Your task to perform on an android device: Go to Reddit.com Image 0: 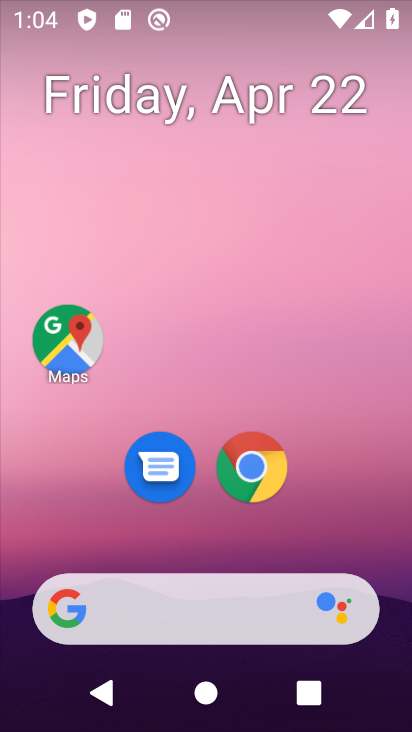
Step 0: click (249, 466)
Your task to perform on an android device: Go to Reddit.com Image 1: 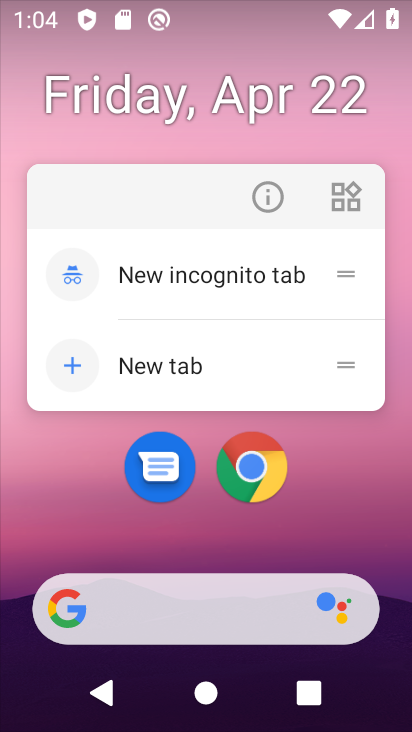
Step 1: click (250, 460)
Your task to perform on an android device: Go to Reddit.com Image 2: 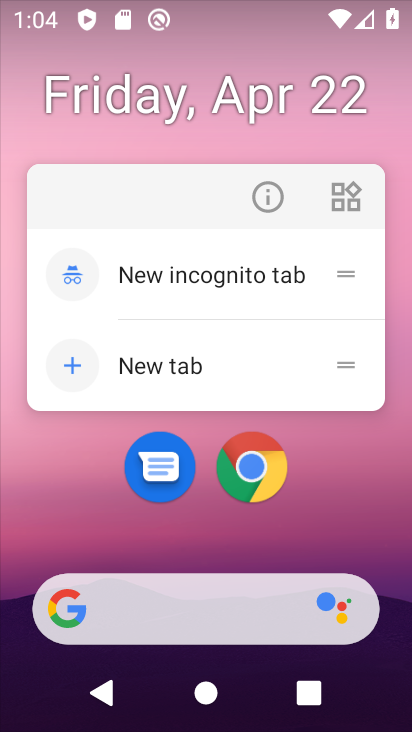
Step 2: click (319, 526)
Your task to perform on an android device: Go to Reddit.com Image 3: 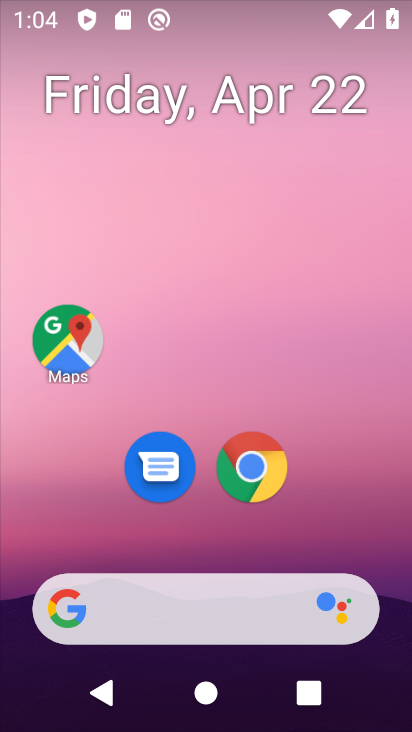
Step 3: click (246, 458)
Your task to perform on an android device: Go to Reddit.com Image 4: 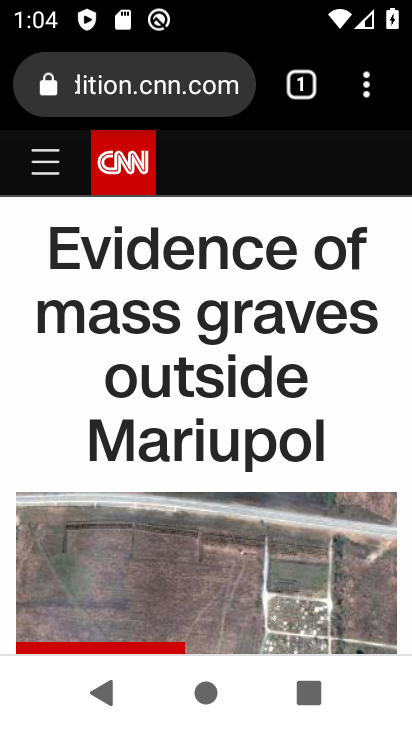
Step 4: click (298, 84)
Your task to perform on an android device: Go to Reddit.com Image 5: 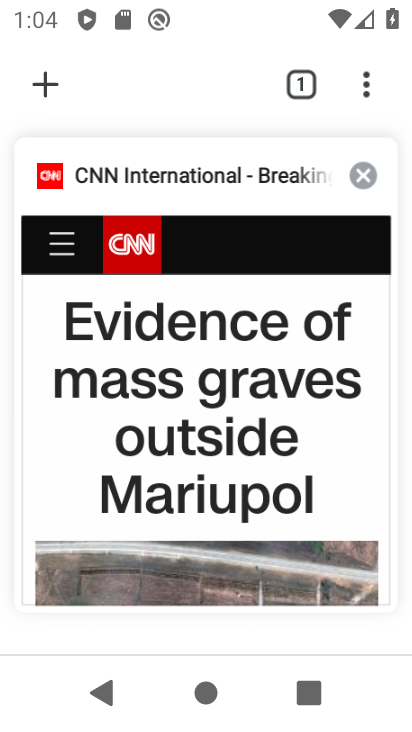
Step 5: click (49, 85)
Your task to perform on an android device: Go to Reddit.com Image 6: 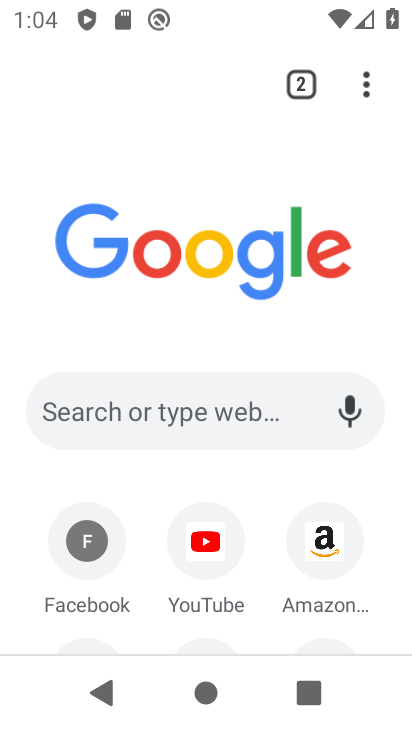
Step 6: drag from (266, 496) to (318, 250)
Your task to perform on an android device: Go to Reddit.com Image 7: 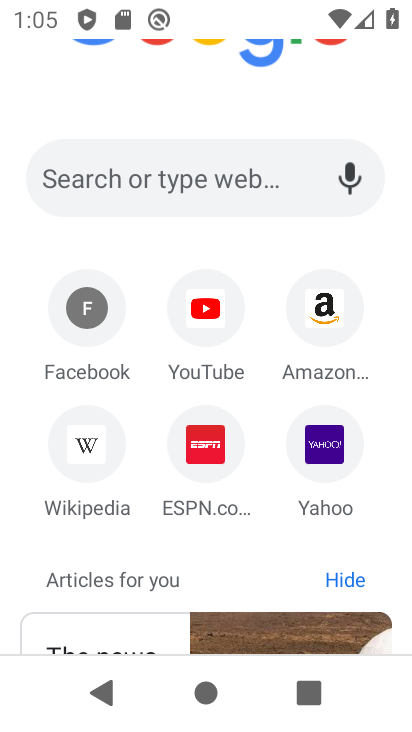
Step 7: click (122, 172)
Your task to perform on an android device: Go to Reddit.com Image 8: 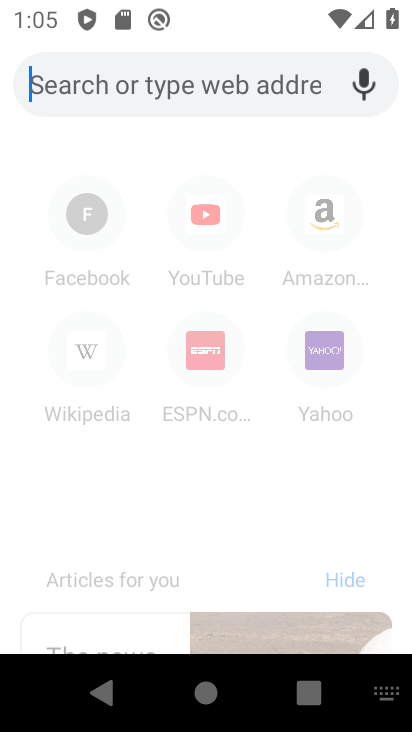
Step 8: type "reddit"
Your task to perform on an android device: Go to Reddit.com Image 9: 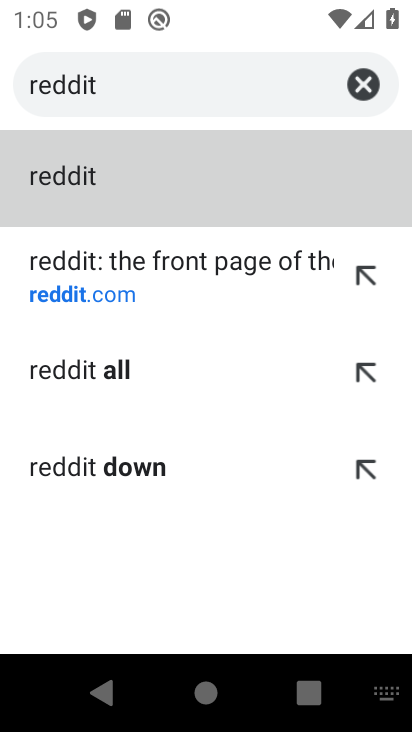
Step 9: click (150, 285)
Your task to perform on an android device: Go to Reddit.com Image 10: 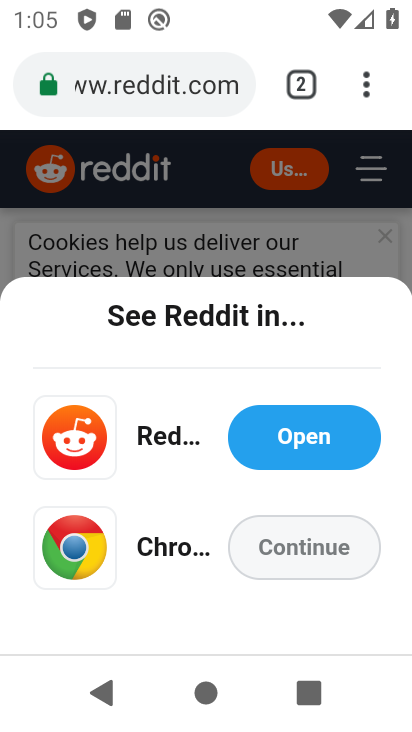
Step 10: click (294, 549)
Your task to perform on an android device: Go to Reddit.com Image 11: 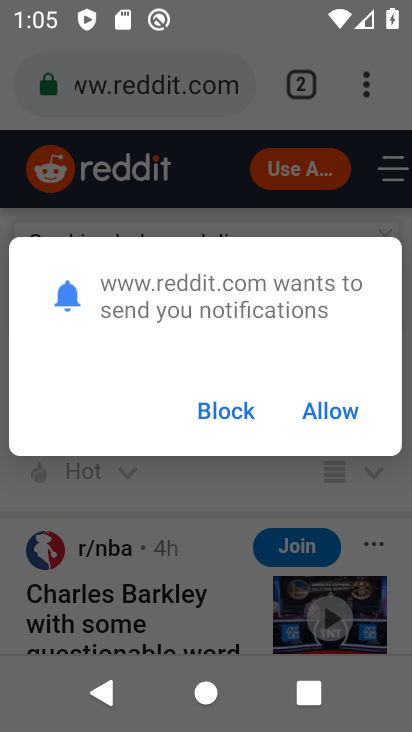
Step 11: click (242, 404)
Your task to perform on an android device: Go to Reddit.com Image 12: 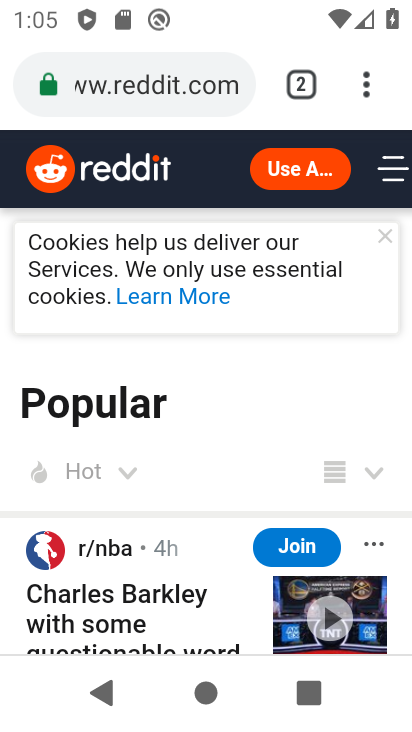
Step 12: task complete